Your task to perform on an android device: What's the weather going to be this weekend? Image 0: 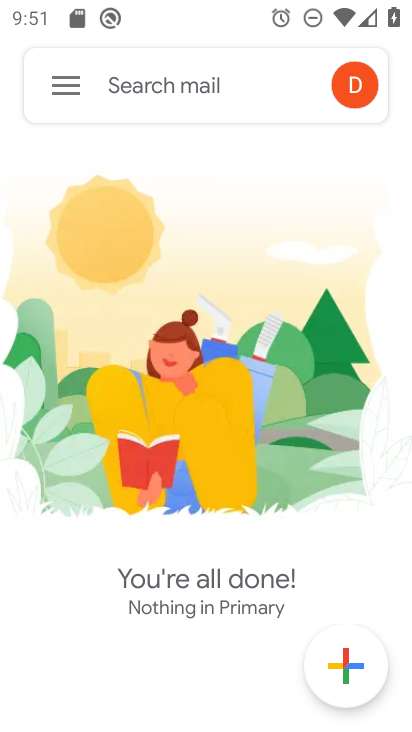
Step 0: press home button
Your task to perform on an android device: What's the weather going to be this weekend? Image 1: 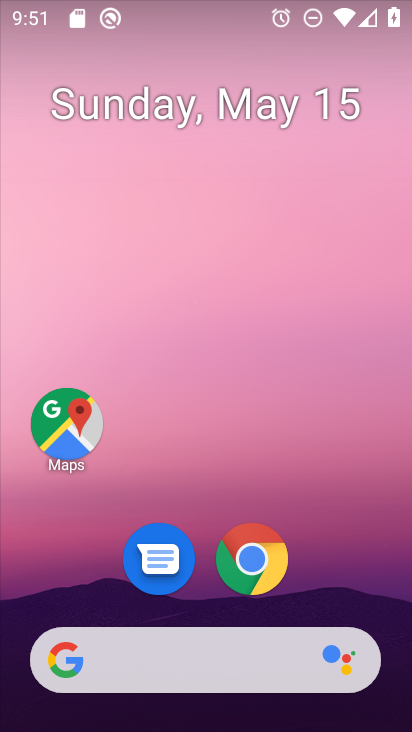
Step 1: drag from (339, 584) to (354, 174)
Your task to perform on an android device: What's the weather going to be this weekend? Image 2: 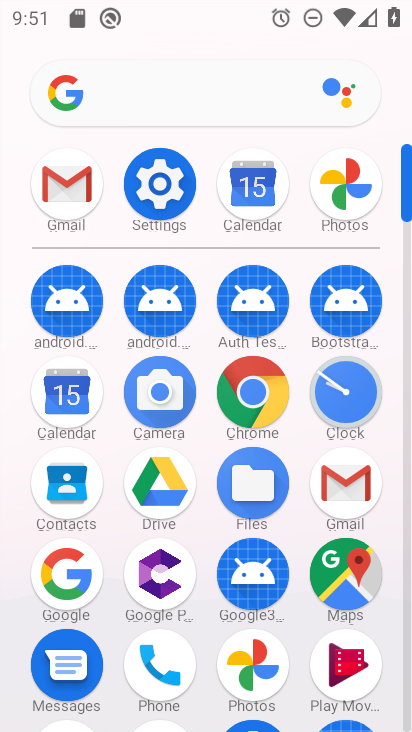
Step 2: click (241, 224)
Your task to perform on an android device: What's the weather going to be this weekend? Image 3: 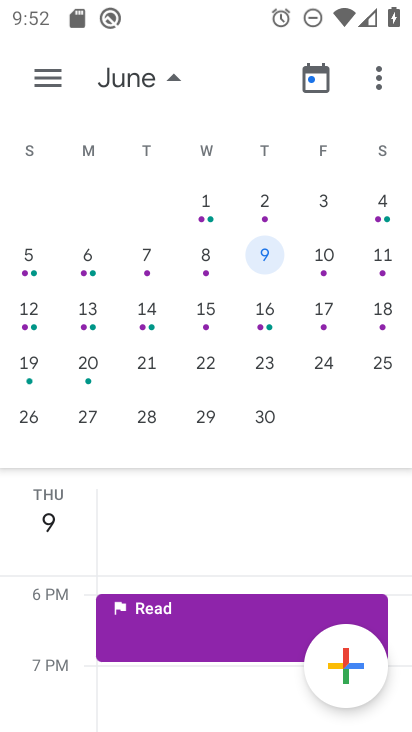
Step 3: click (61, 77)
Your task to perform on an android device: What's the weather going to be this weekend? Image 4: 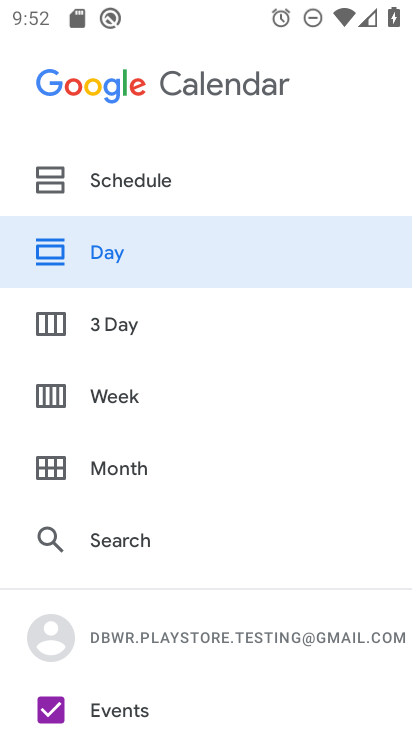
Step 4: click (107, 403)
Your task to perform on an android device: What's the weather going to be this weekend? Image 5: 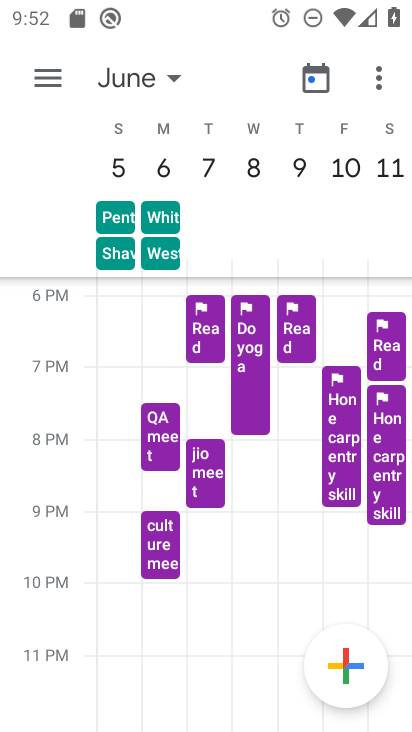
Step 5: task complete